Your task to perform on an android device: open app "Indeed Job Search" (install if not already installed) and go to login screen Image 0: 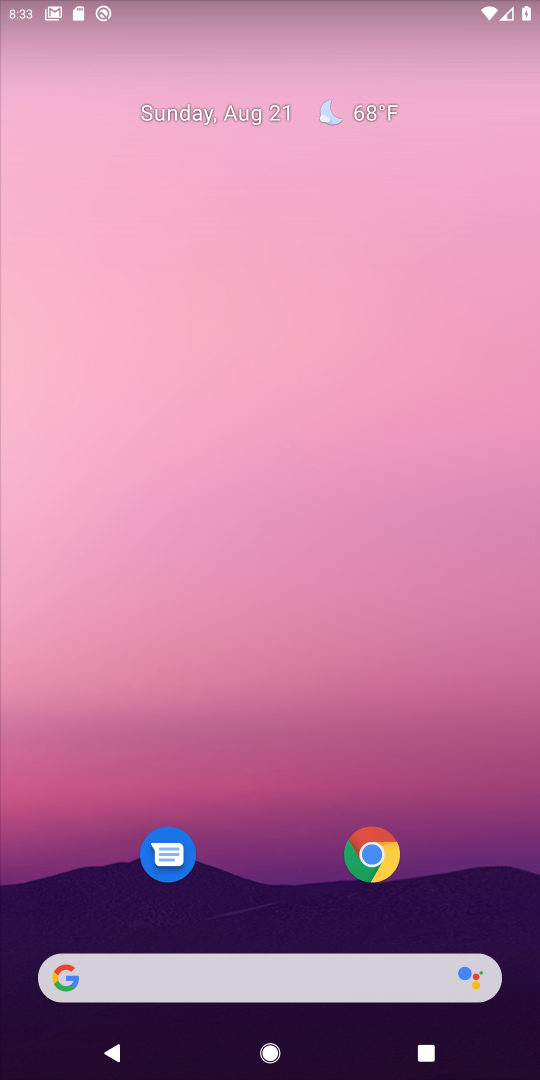
Step 0: drag from (291, 920) to (246, 176)
Your task to perform on an android device: open app "Indeed Job Search" (install if not already installed) and go to login screen Image 1: 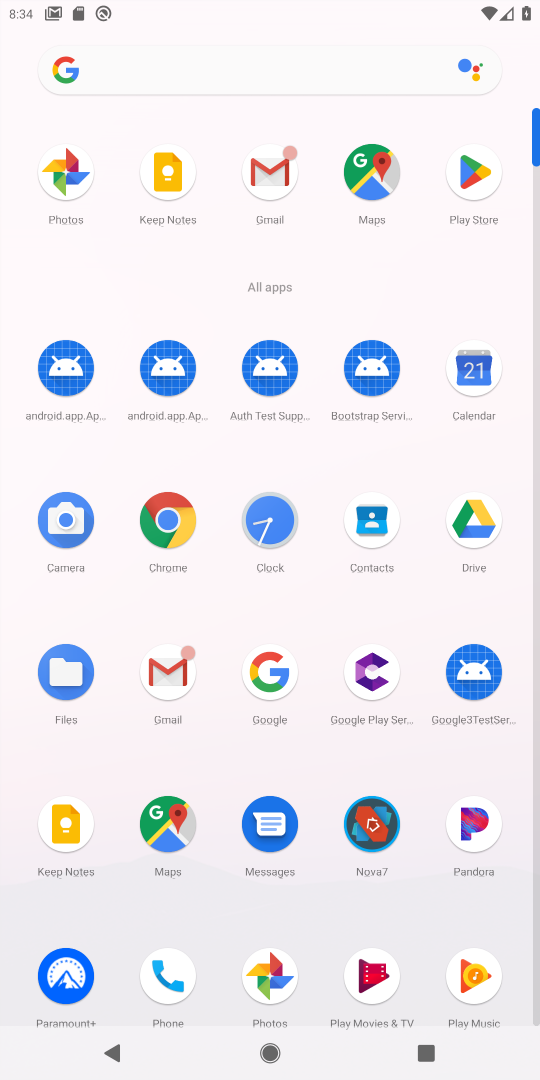
Step 1: click (468, 216)
Your task to perform on an android device: open app "Indeed Job Search" (install if not already installed) and go to login screen Image 2: 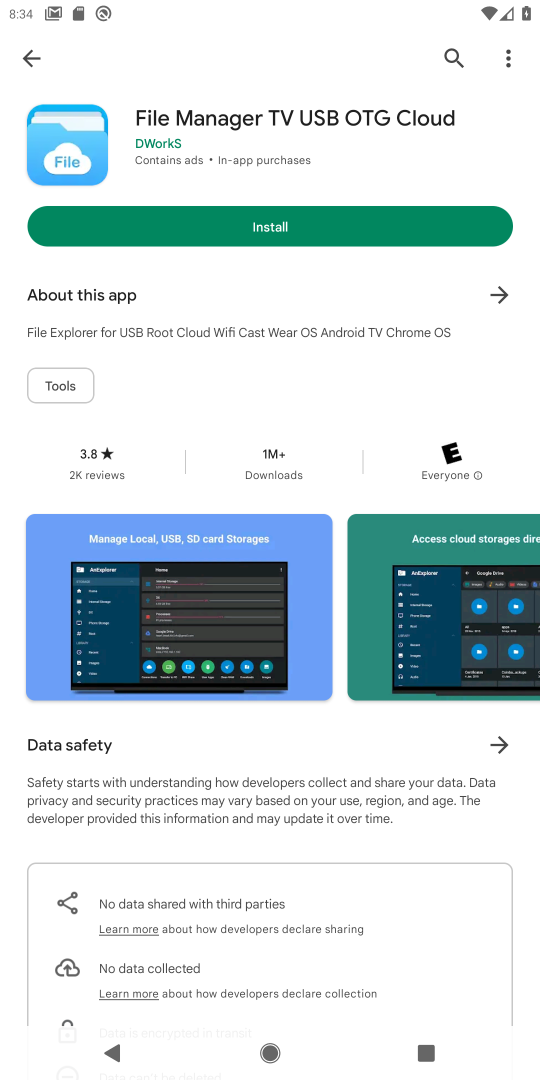
Step 2: click (468, 216)
Your task to perform on an android device: open app "Indeed Job Search" (install if not already installed) and go to login screen Image 3: 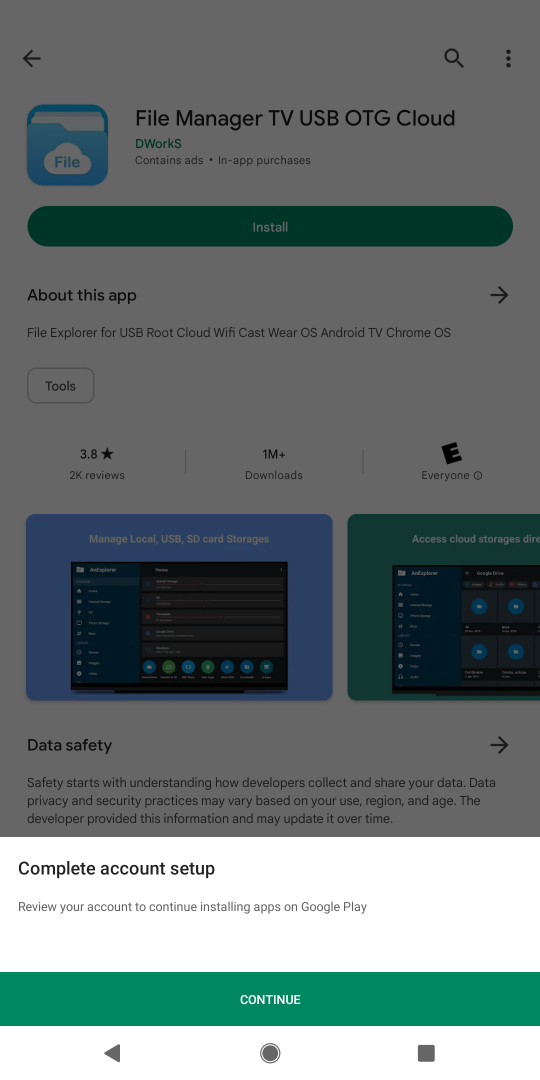
Step 3: click (229, 1018)
Your task to perform on an android device: open app "Indeed Job Search" (install if not already installed) and go to login screen Image 4: 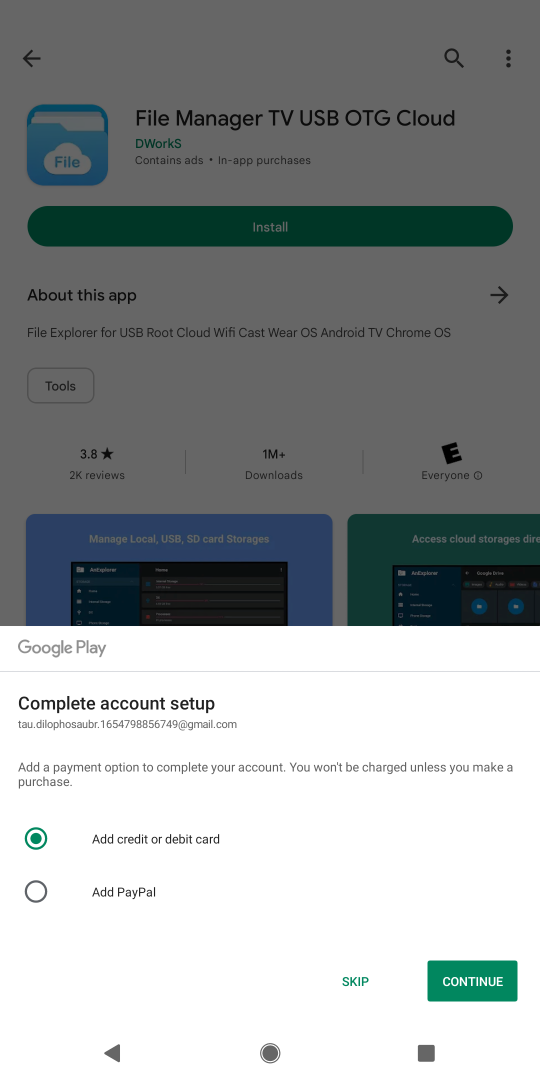
Step 4: click (368, 982)
Your task to perform on an android device: open app "Indeed Job Search" (install if not already installed) and go to login screen Image 5: 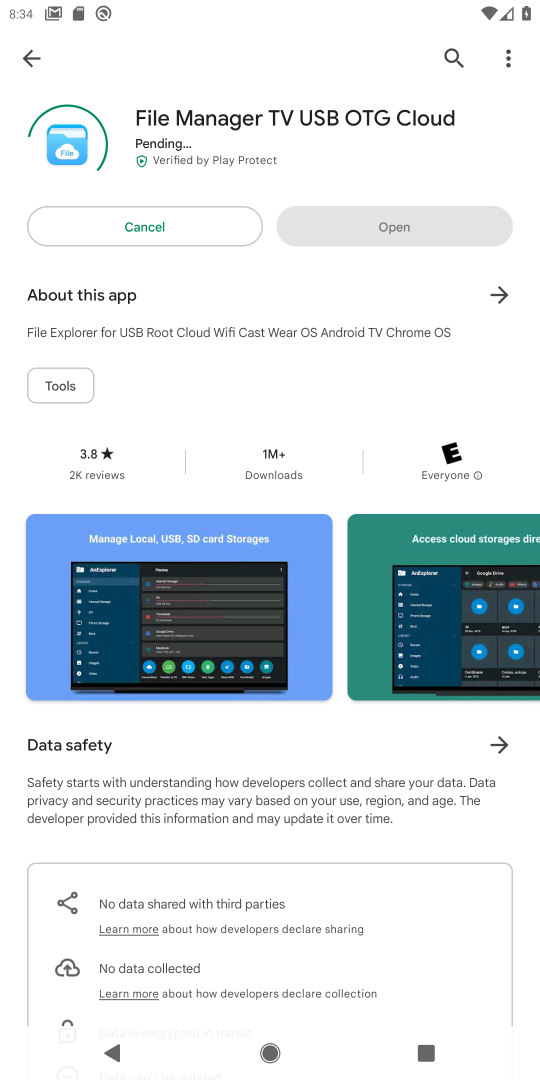
Step 5: click (457, 52)
Your task to perform on an android device: open app "Indeed Job Search" (install if not already installed) and go to login screen Image 6: 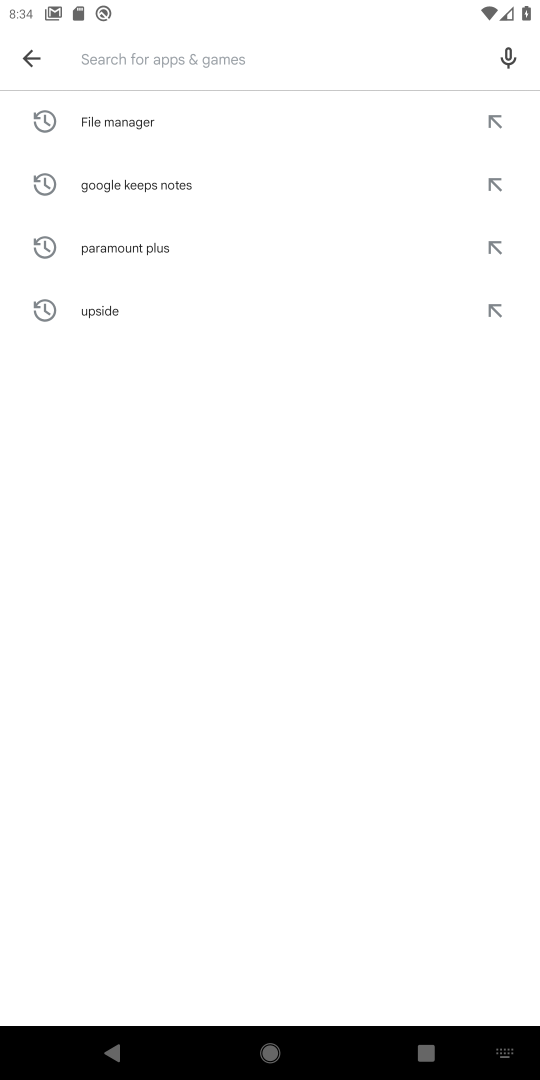
Step 6: type "indeed"
Your task to perform on an android device: open app "Indeed Job Search" (install if not already installed) and go to login screen Image 7: 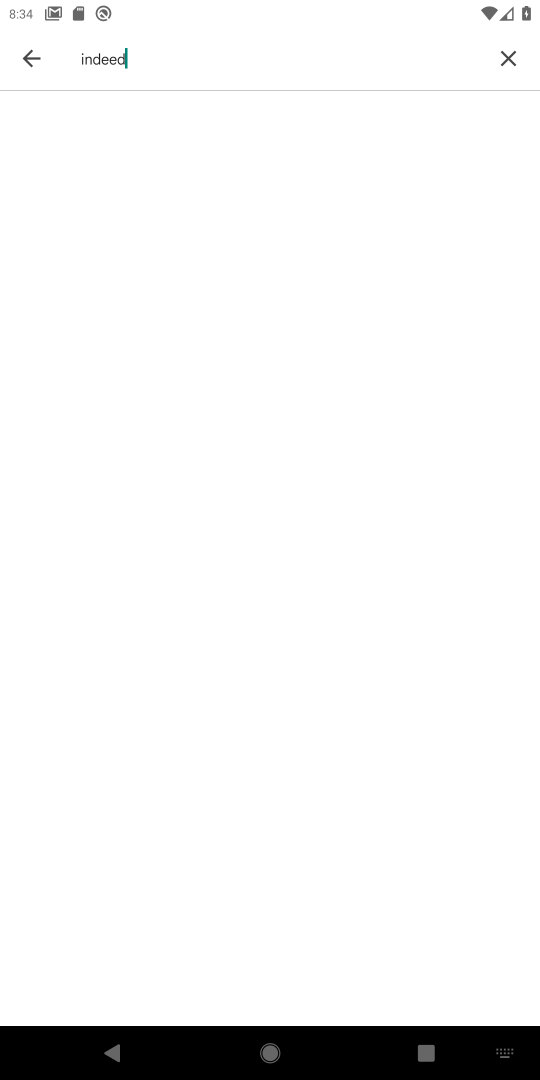
Step 7: click (190, 102)
Your task to perform on an android device: open app "Indeed Job Search" (install if not already installed) and go to login screen Image 8: 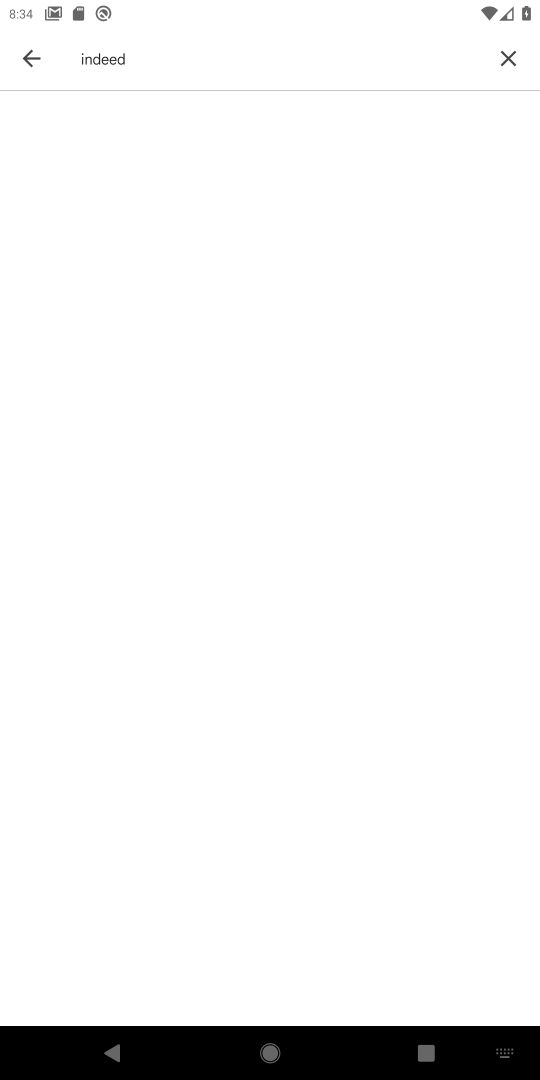
Step 8: task complete